Your task to perform on an android device: star an email in the gmail app Image 0: 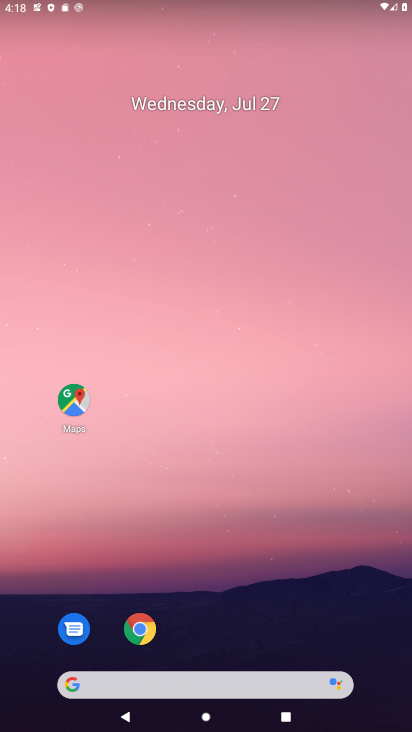
Step 0: drag from (222, 639) to (165, 179)
Your task to perform on an android device: star an email in the gmail app Image 1: 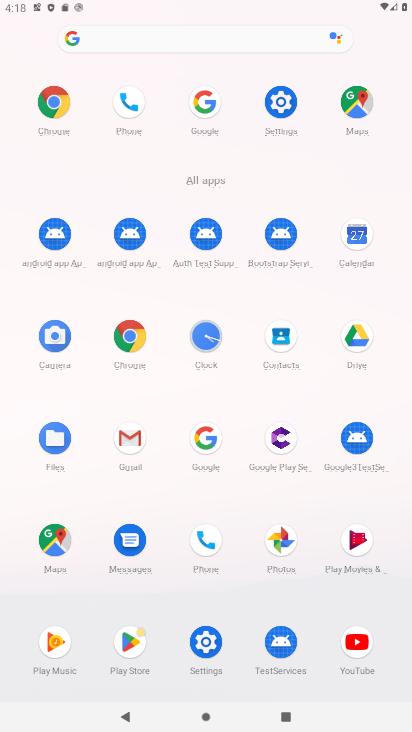
Step 1: click (120, 457)
Your task to perform on an android device: star an email in the gmail app Image 2: 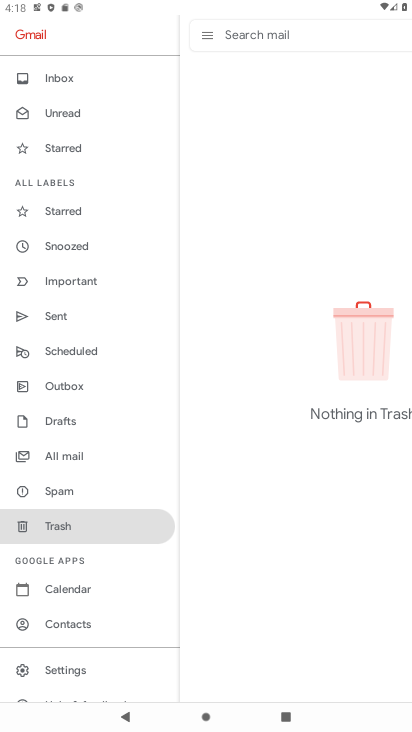
Step 2: click (61, 84)
Your task to perform on an android device: star an email in the gmail app Image 3: 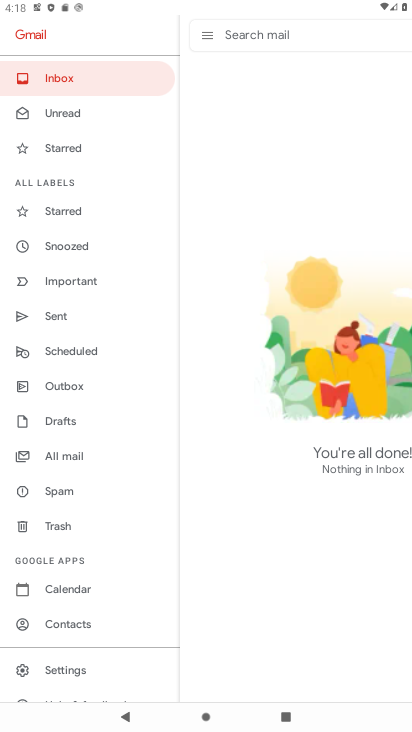
Step 3: click (62, 206)
Your task to perform on an android device: star an email in the gmail app Image 4: 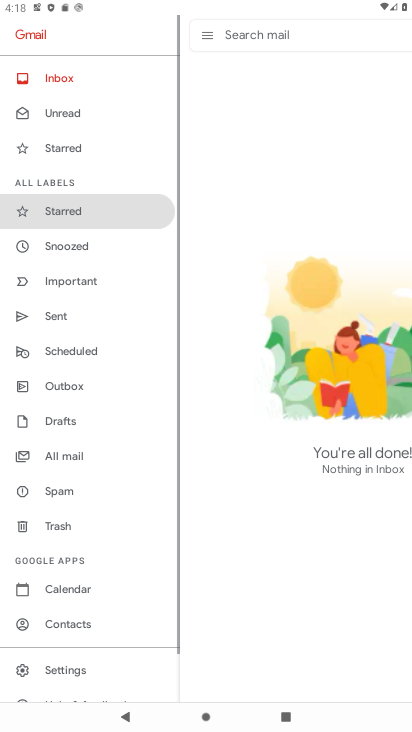
Step 4: task complete